Your task to perform on an android device: uninstall "Walmart Shopping & Grocery" Image 0: 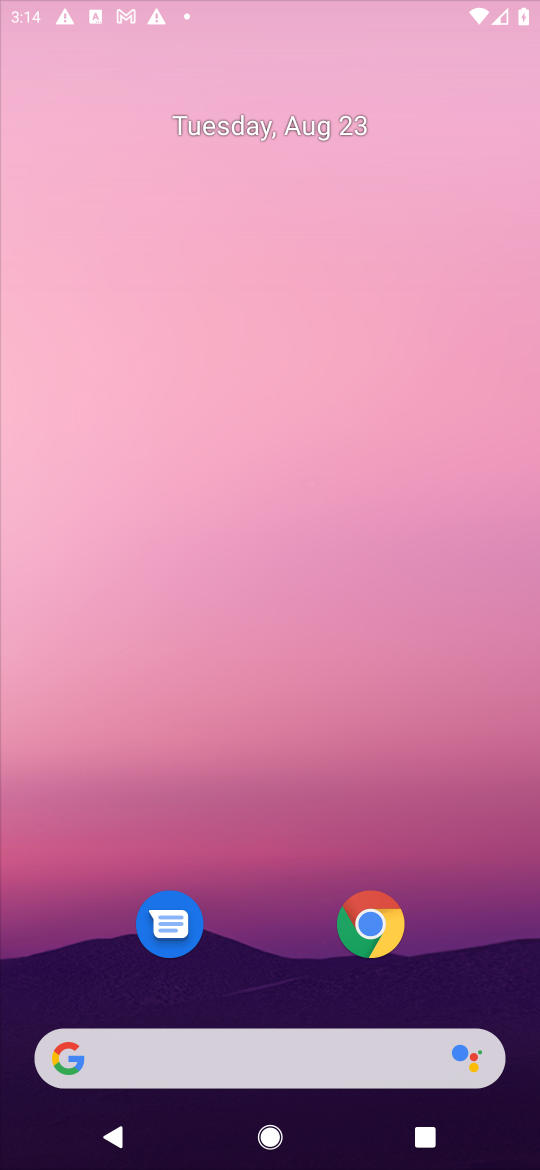
Step 0: press home button
Your task to perform on an android device: uninstall "Walmart Shopping & Grocery" Image 1: 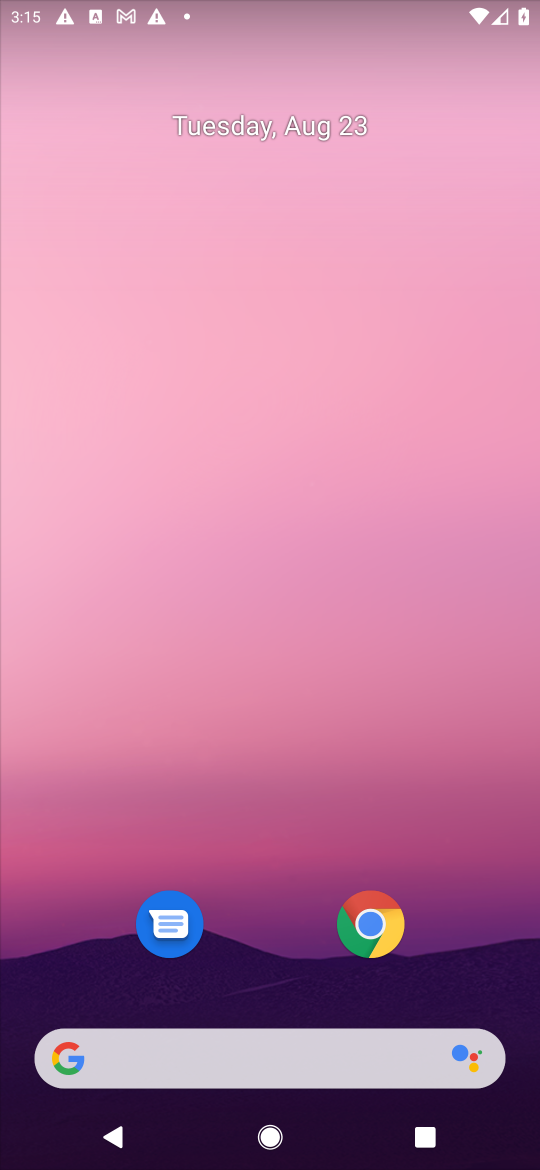
Step 1: drag from (466, 776) to (467, 122)
Your task to perform on an android device: uninstall "Walmart Shopping & Grocery" Image 2: 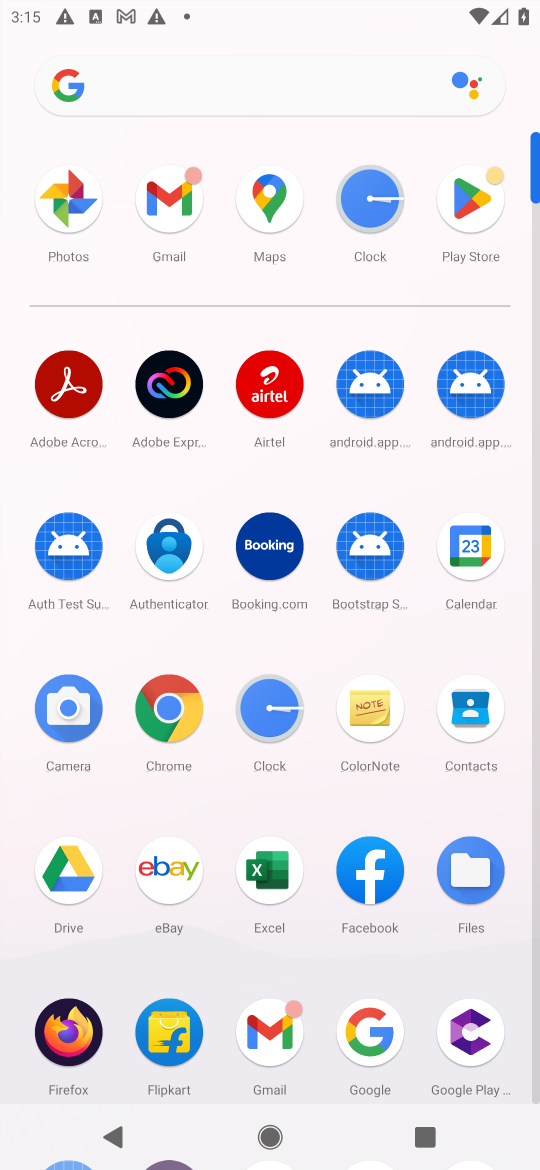
Step 2: click (476, 205)
Your task to perform on an android device: uninstall "Walmart Shopping & Grocery" Image 3: 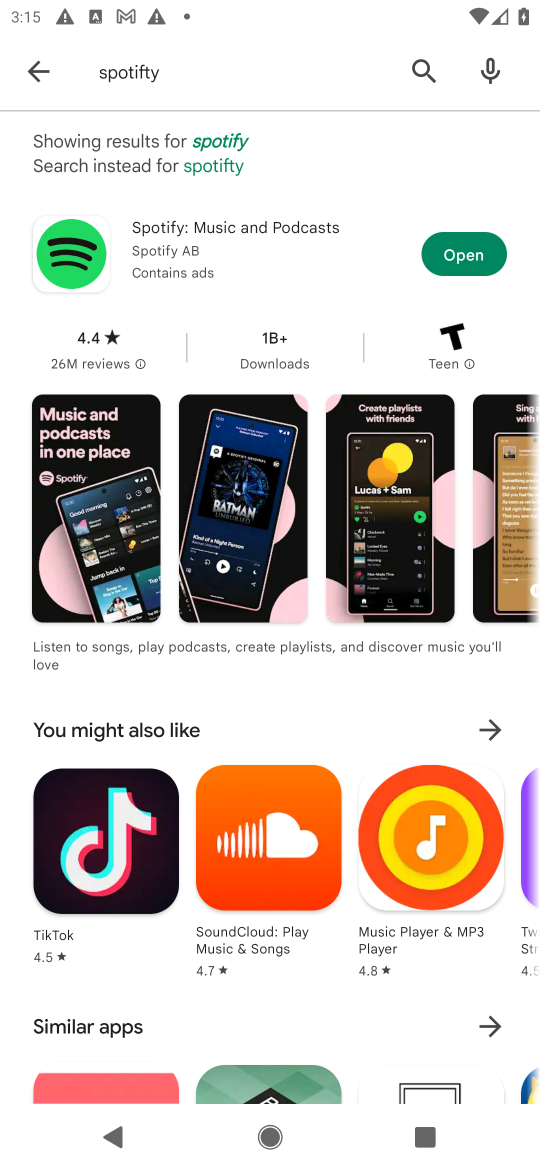
Step 3: press back button
Your task to perform on an android device: uninstall "Walmart Shopping & Grocery" Image 4: 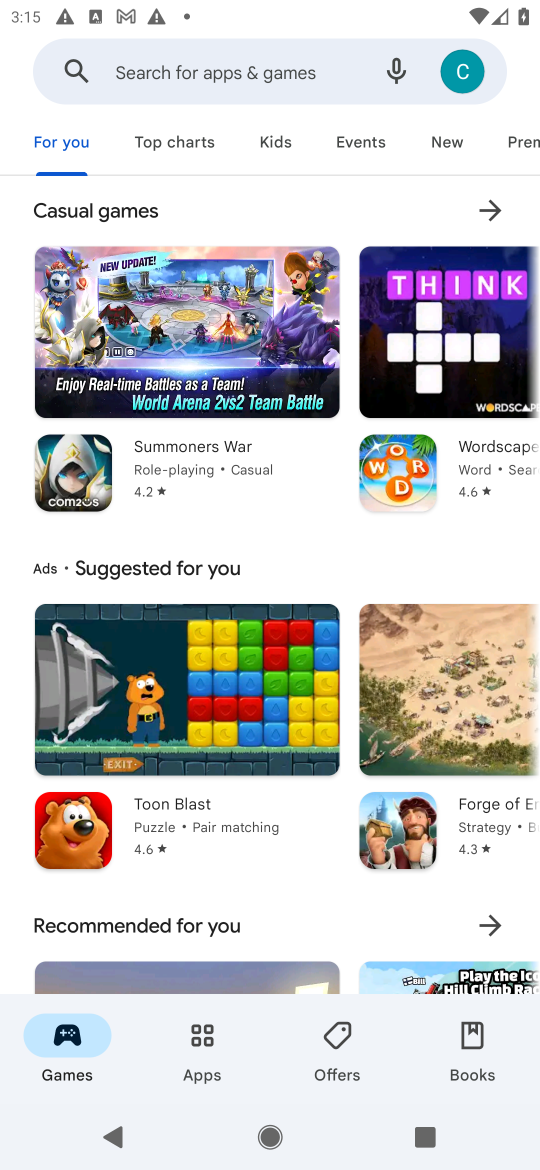
Step 4: click (274, 65)
Your task to perform on an android device: uninstall "Walmart Shopping & Grocery" Image 5: 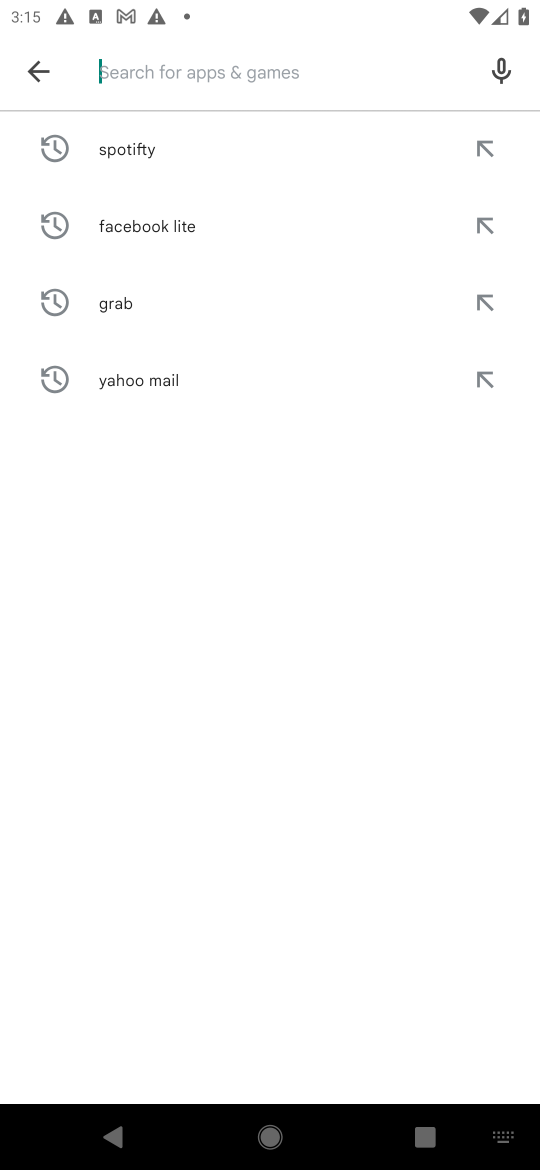
Step 5: press enter
Your task to perform on an android device: uninstall "Walmart Shopping & Grocery" Image 6: 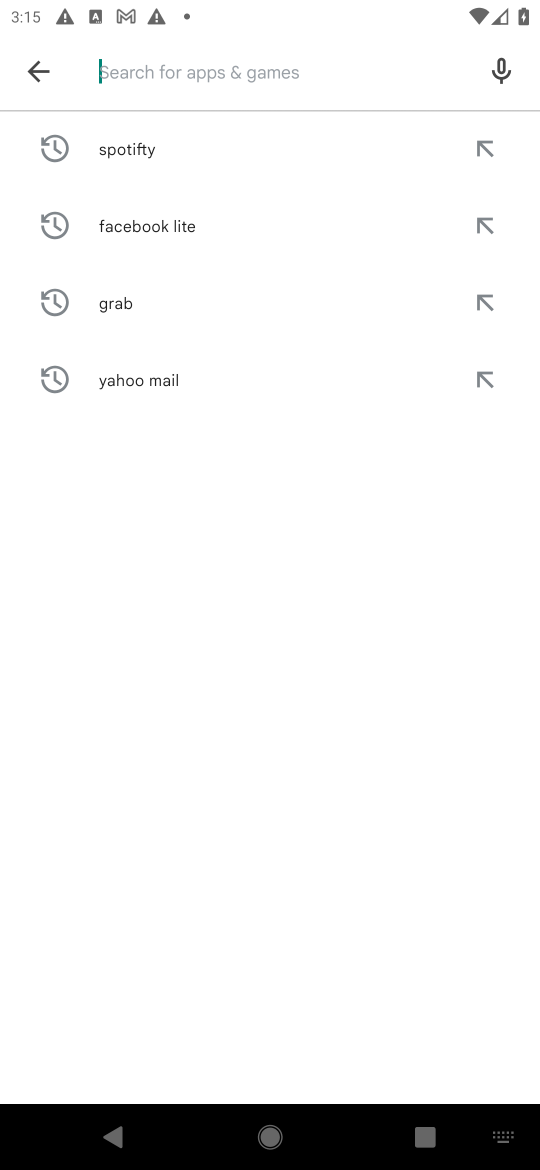
Step 6: type "Walmart Shopping & Grocery"
Your task to perform on an android device: uninstall "Walmart Shopping & Grocery" Image 7: 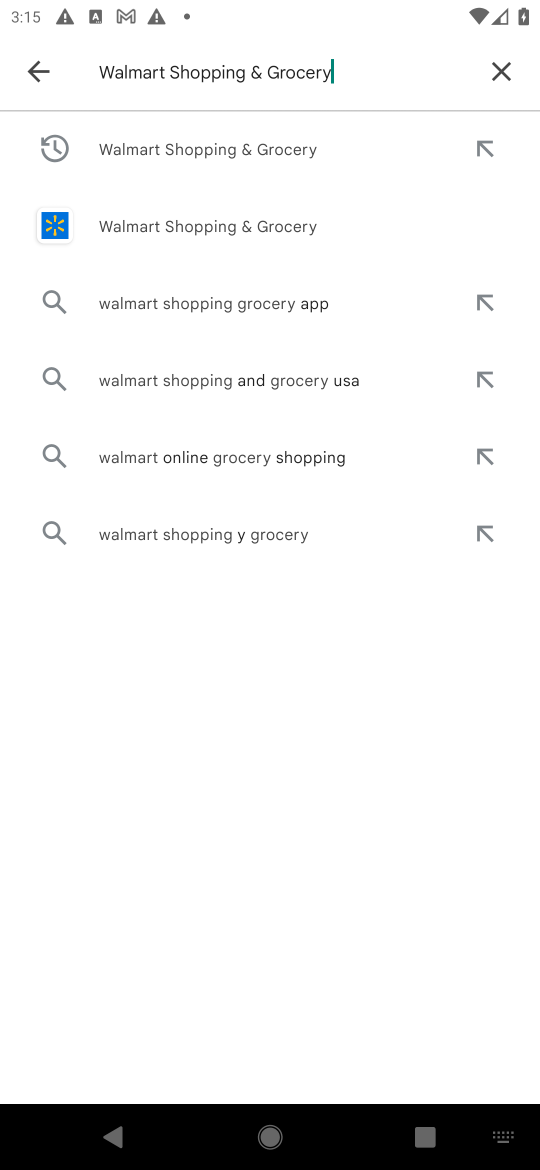
Step 7: click (308, 222)
Your task to perform on an android device: uninstall "Walmart Shopping & Grocery" Image 8: 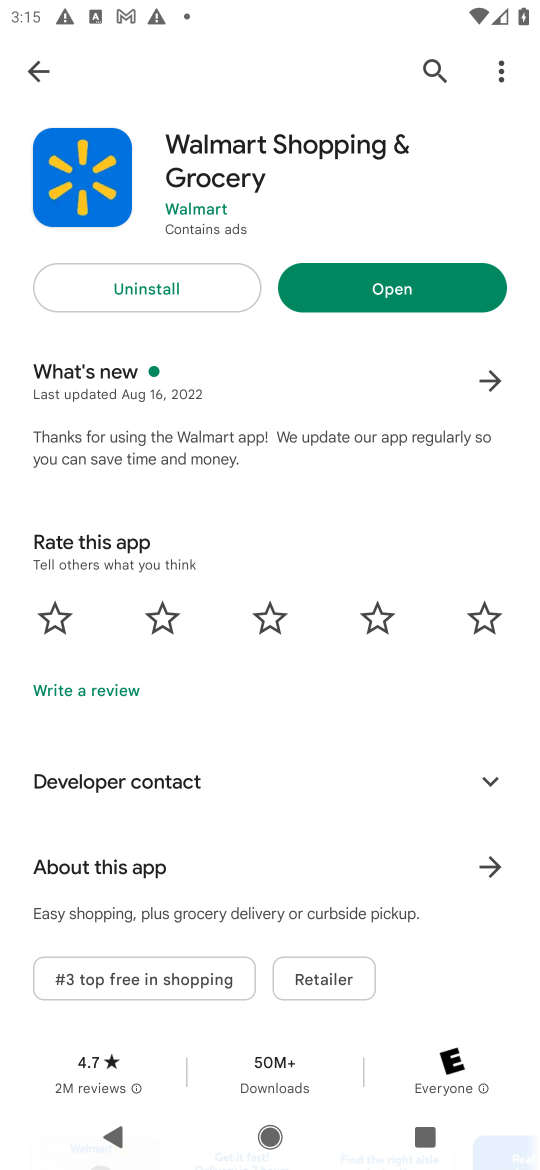
Step 8: click (147, 282)
Your task to perform on an android device: uninstall "Walmart Shopping & Grocery" Image 9: 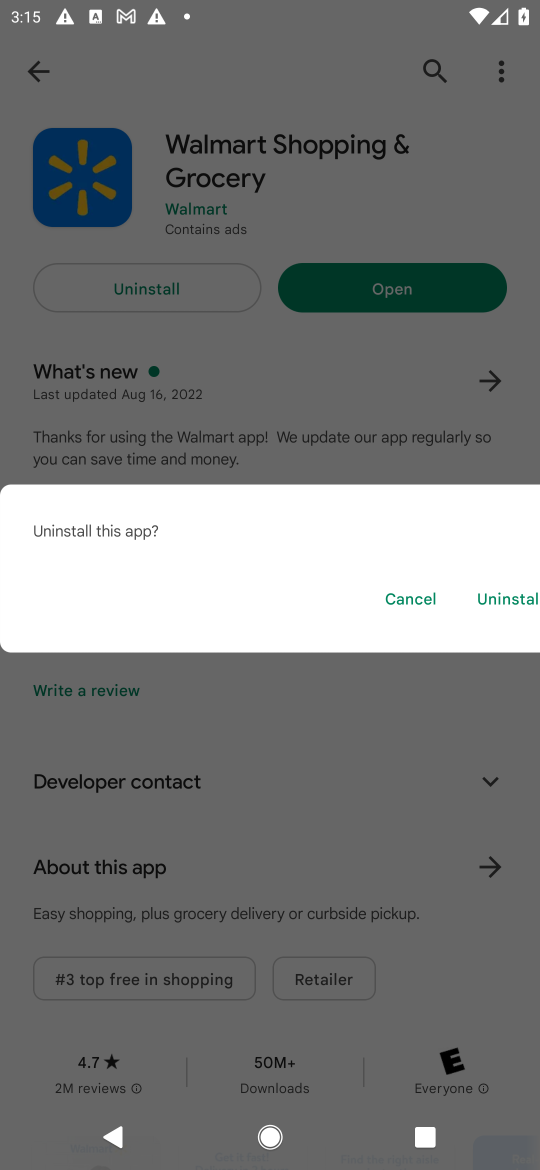
Step 9: click (517, 593)
Your task to perform on an android device: uninstall "Walmart Shopping & Grocery" Image 10: 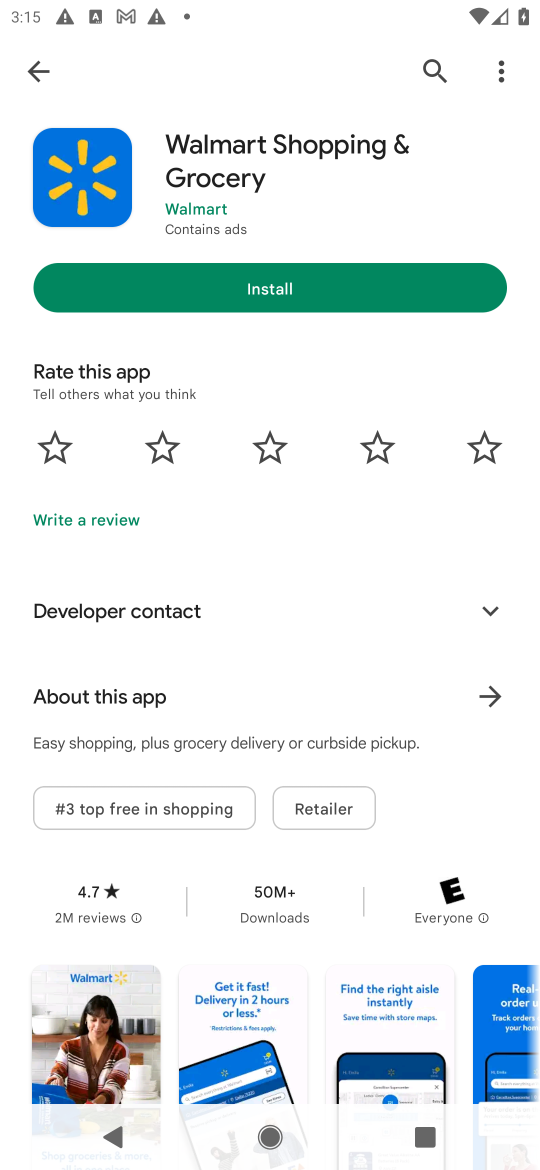
Step 10: task complete